Your task to perform on an android device: Go to calendar. Show me events next week Image 0: 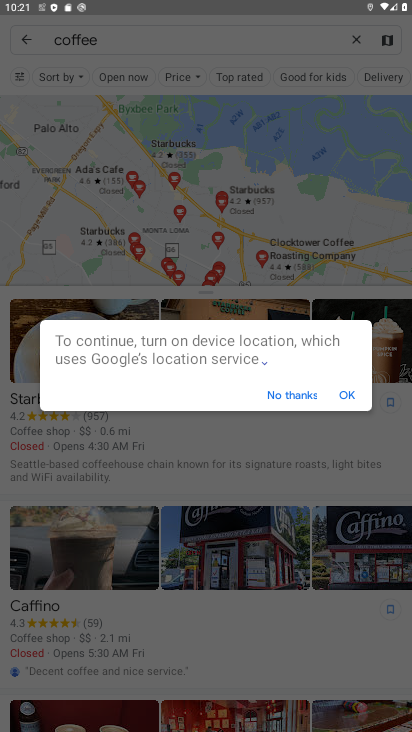
Step 0: press home button
Your task to perform on an android device: Go to calendar. Show me events next week Image 1: 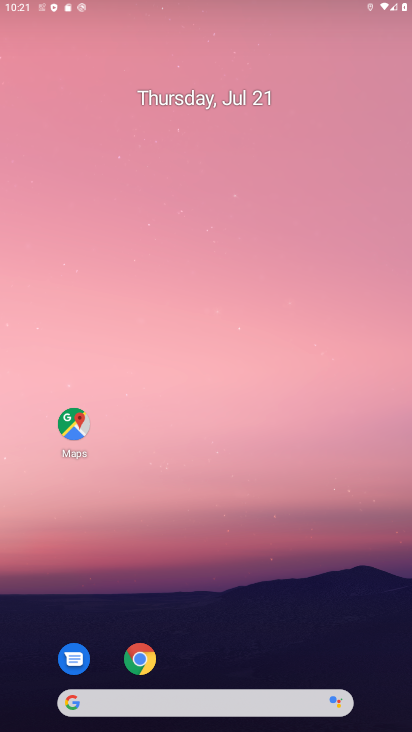
Step 1: press back button
Your task to perform on an android device: Go to calendar. Show me events next week Image 2: 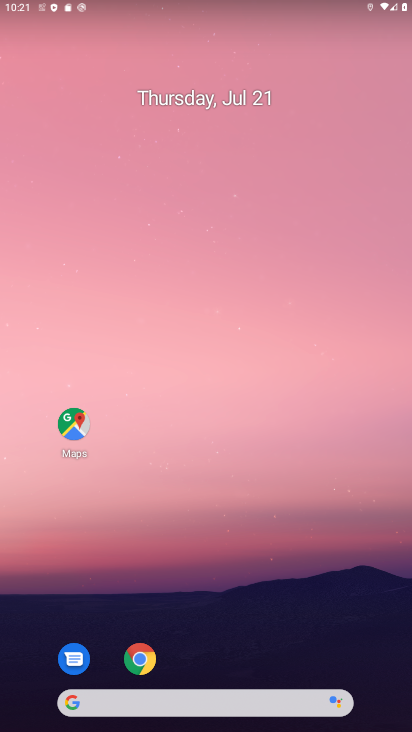
Step 2: drag from (241, 675) to (191, 107)
Your task to perform on an android device: Go to calendar. Show me events next week Image 3: 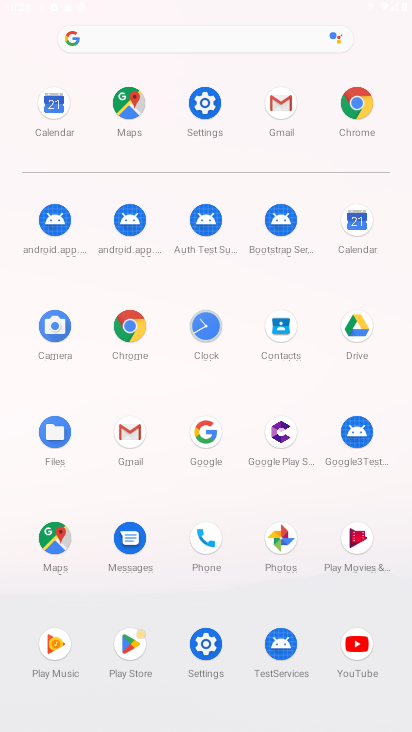
Step 3: click (361, 222)
Your task to perform on an android device: Go to calendar. Show me events next week Image 4: 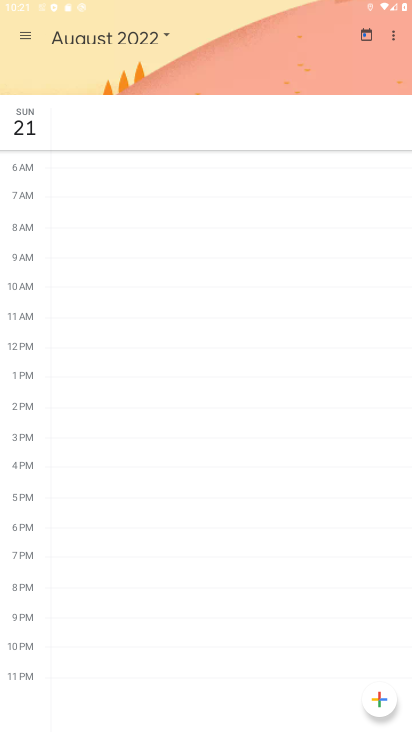
Step 4: click (26, 40)
Your task to perform on an android device: Go to calendar. Show me events next week Image 5: 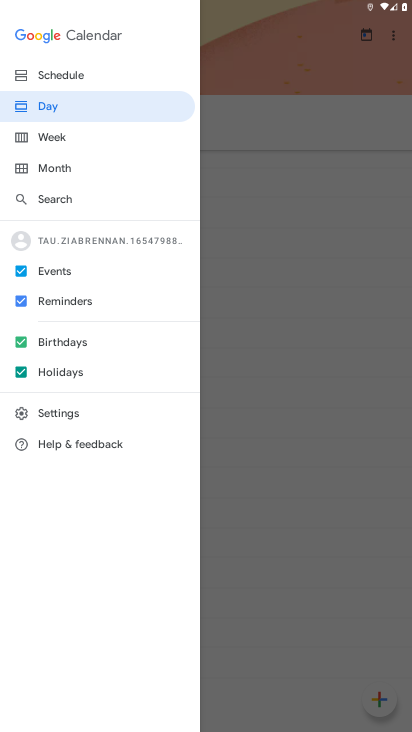
Step 5: click (60, 143)
Your task to perform on an android device: Go to calendar. Show me events next week Image 6: 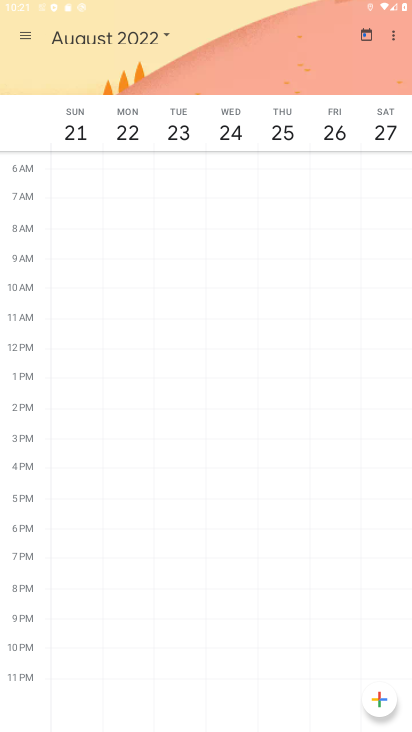
Step 6: click (362, 28)
Your task to perform on an android device: Go to calendar. Show me events next week Image 7: 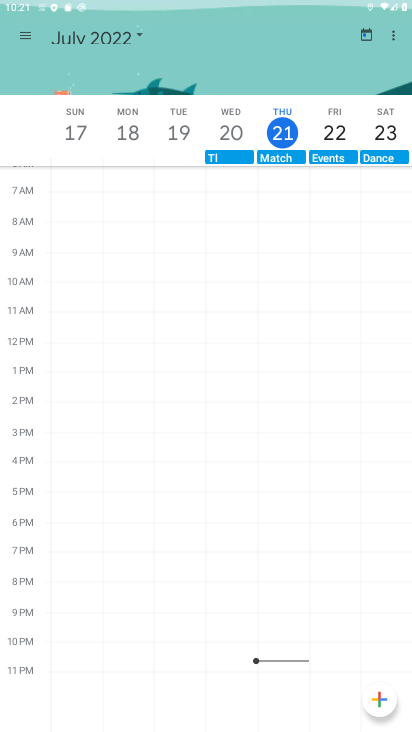
Step 7: click (382, 152)
Your task to perform on an android device: Go to calendar. Show me events next week Image 8: 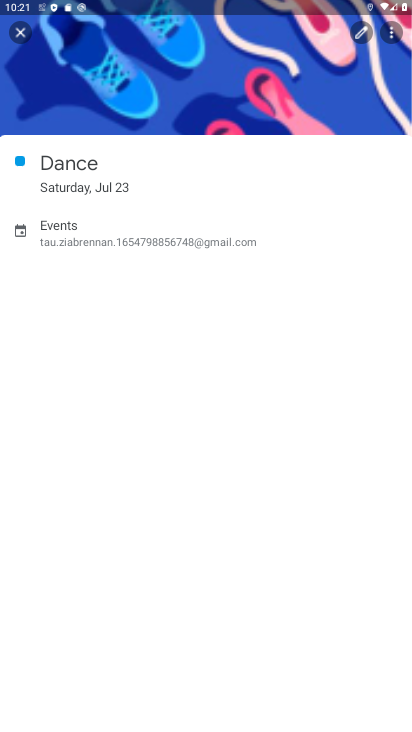
Step 8: click (382, 152)
Your task to perform on an android device: Go to calendar. Show me events next week Image 9: 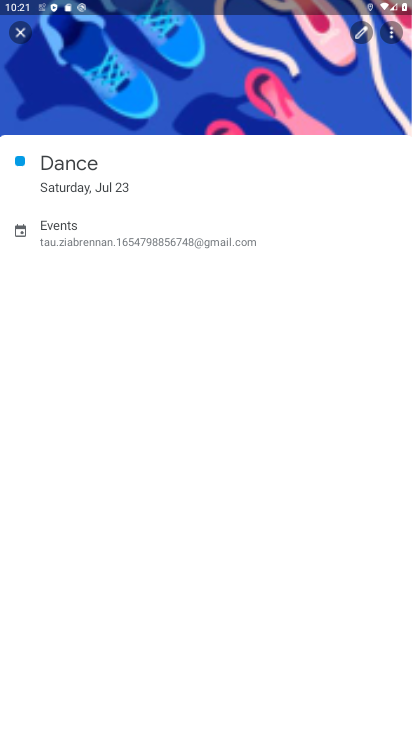
Step 9: click (30, 31)
Your task to perform on an android device: Go to calendar. Show me events next week Image 10: 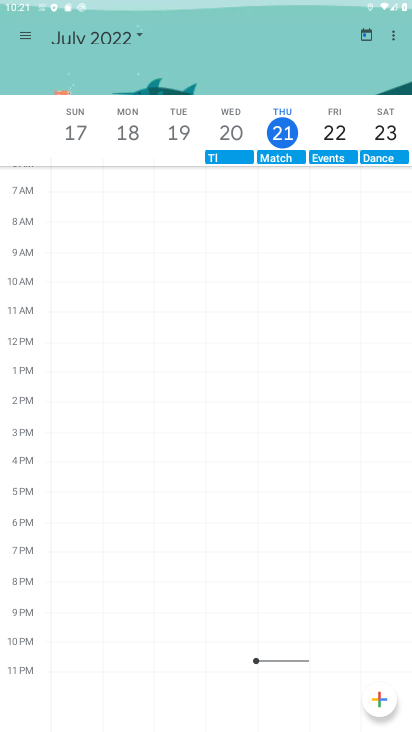
Step 10: task complete